Your task to perform on an android device: Search for pizza restaurants on Maps Image 0: 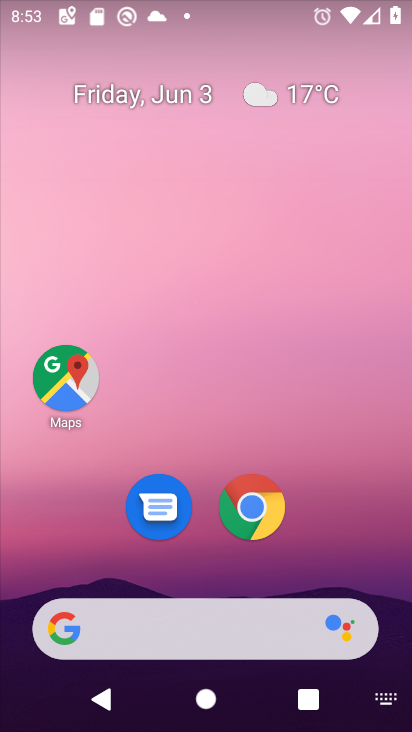
Step 0: click (82, 385)
Your task to perform on an android device: Search for pizza restaurants on Maps Image 1: 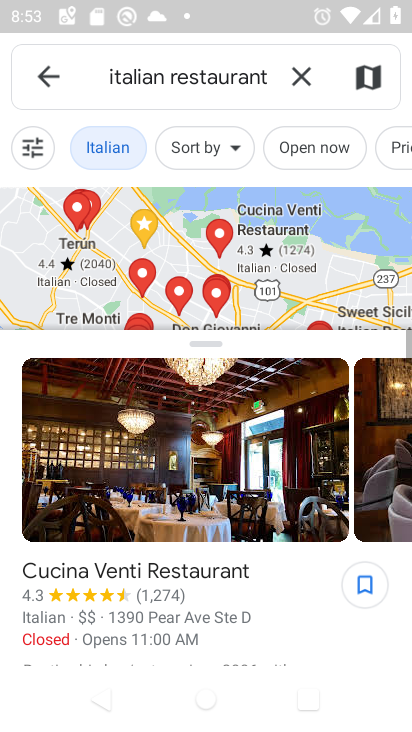
Step 1: click (306, 62)
Your task to perform on an android device: Search for pizza restaurants on Maps Image 2: 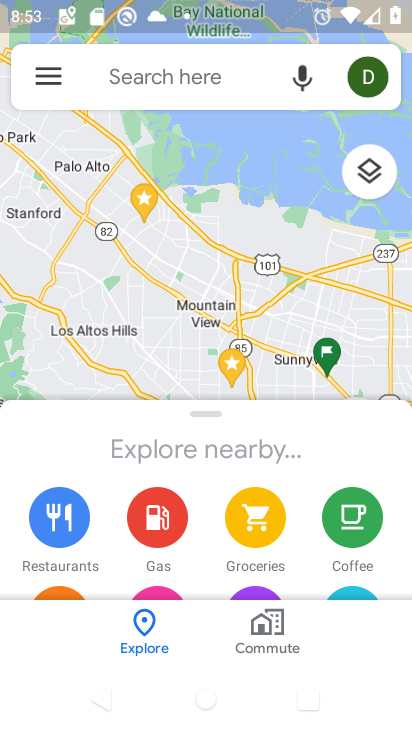
Step 2: click (191, 70)
Your task to perform on an android device: Search for pizza restaurants on Maps Image 3: 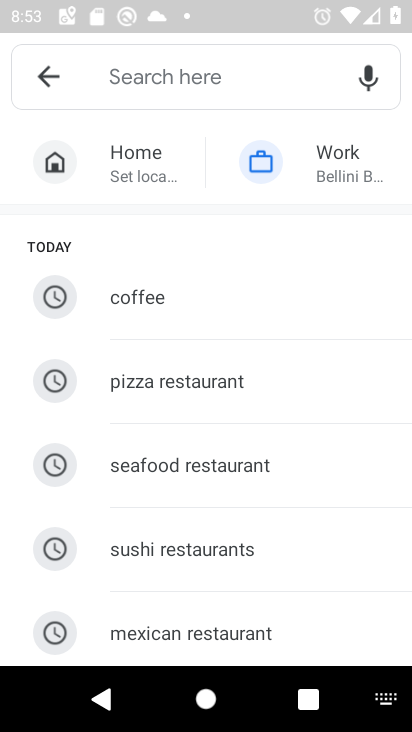
Step 3: click (155, 351)
Your task to perform on an android device: Search for pizza restaurants on Maps Image 4: 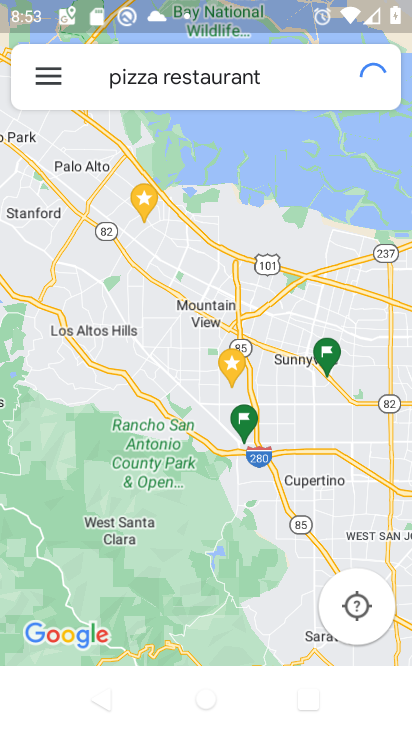
Step 4: task complete